Your task to perform on an android device: toggle improve location accuracy Image 0: 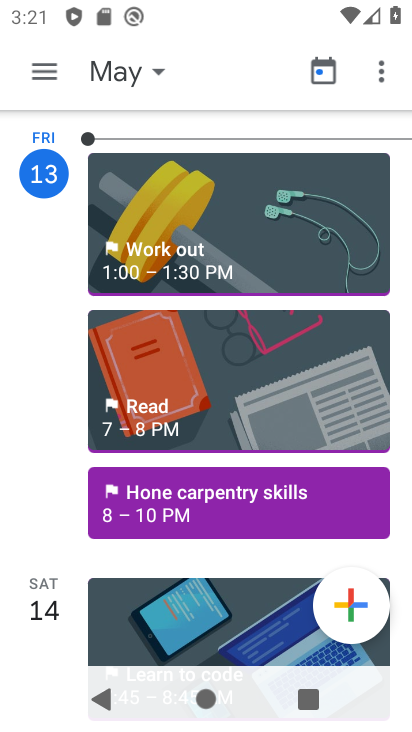
Step 0: press home button
Your task to perform on an android device: toggle improve location accuracy Image 1: 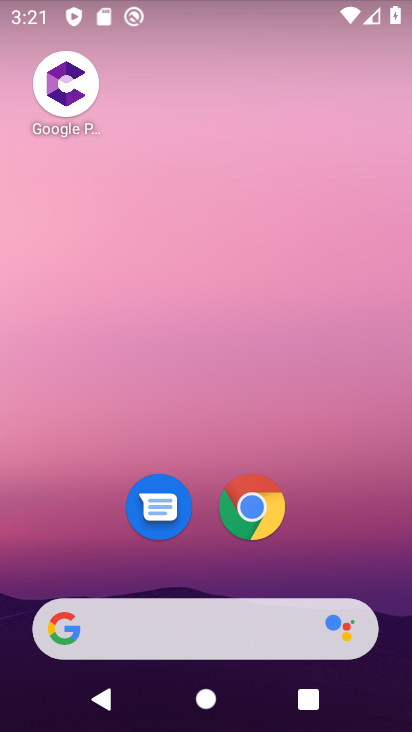
Step 1: drag from (338, 387) to (330, 0)
Your task to perform on an android device: toggle improve location accuracy Image 2: 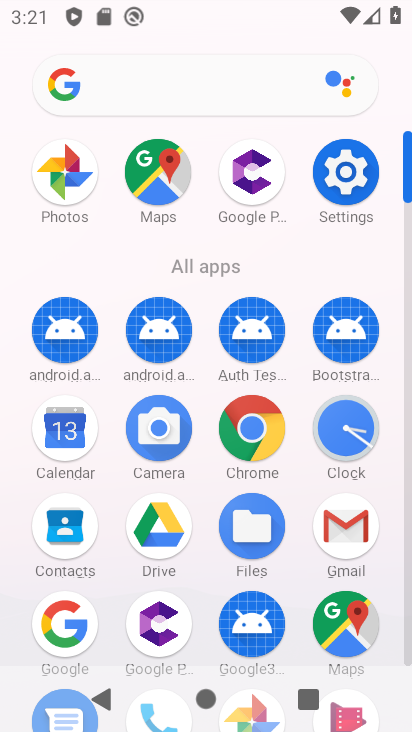
Step 2: click (361, 183)
Your task to perform on an android device: toggle improve location accuracy Image 3: 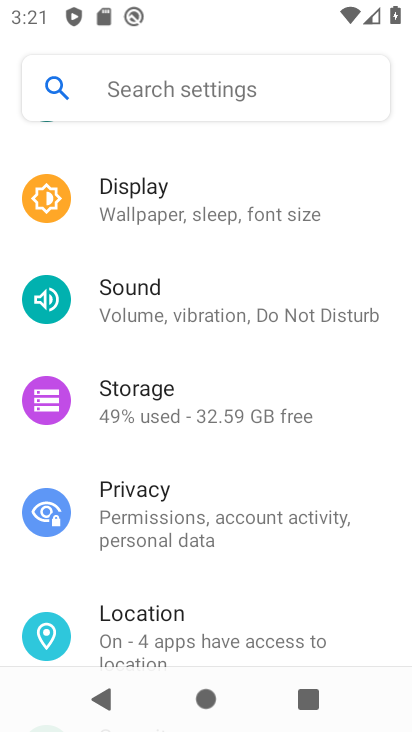
Step 3: drag from (224, 591) to (252, 317)
Your task to perform on an android device: toggle improve location accuracy Image 4: 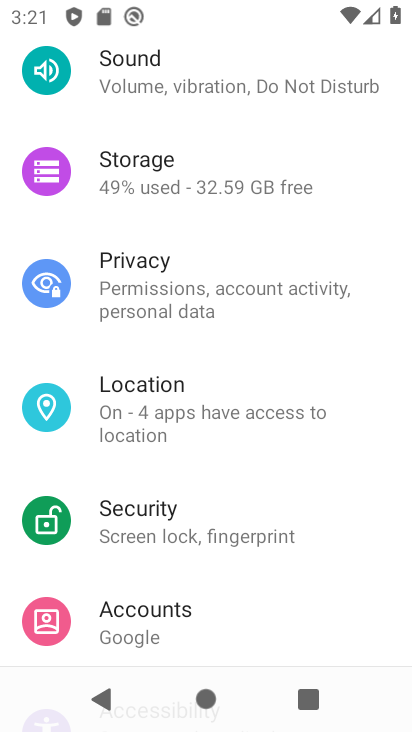
Step 4: click (161, 395)
Your task to perform on an android device: toggle improve location accuracy Image 5: 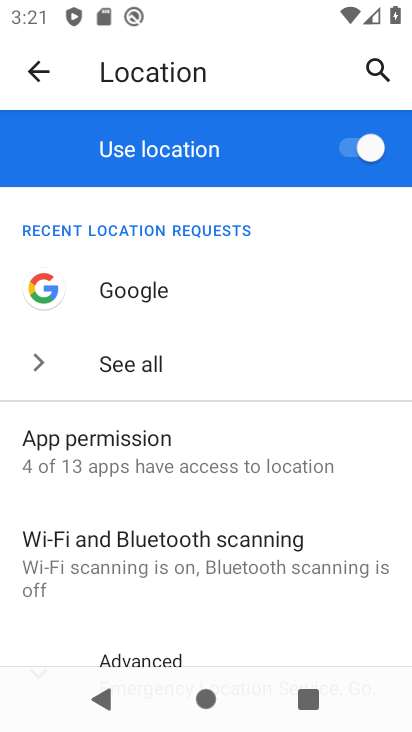
Step 5: drag from (191, 576) to (224, 285)
Your task to perform on an android device: toggle improve location accuracy Image 6: 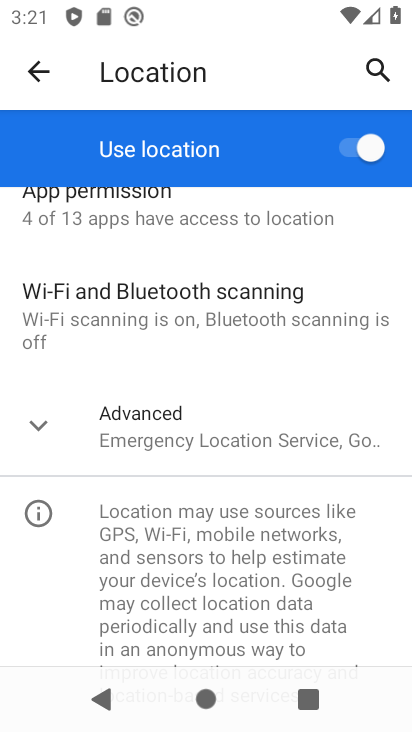
Step 6: click (183, 453)
Your task to perform on an android device: toggle improve location accuracy Image 7: 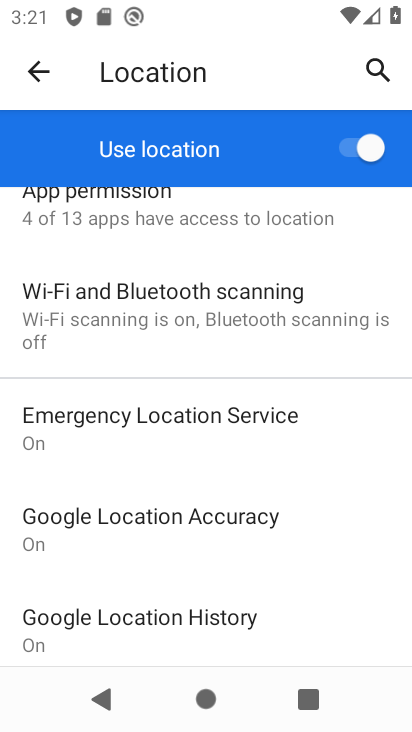
Step 7: click (165, 514)
Your task to perform on an android device: toggle improve location accuracy Image 8: 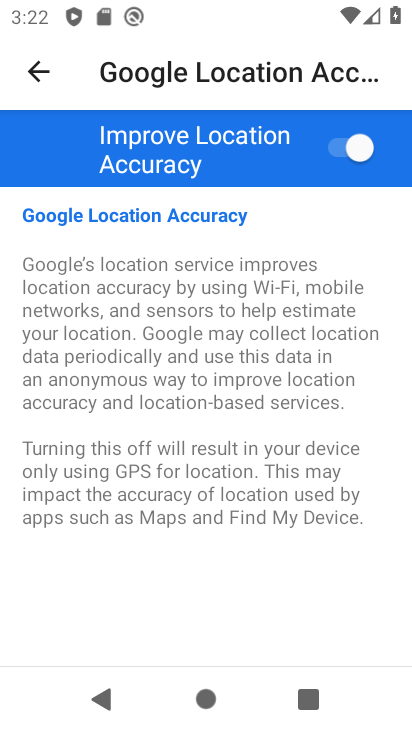
Step 8: click (337, 152)
Your task to perform on an android device: toggle improve location accuracy Image 9: 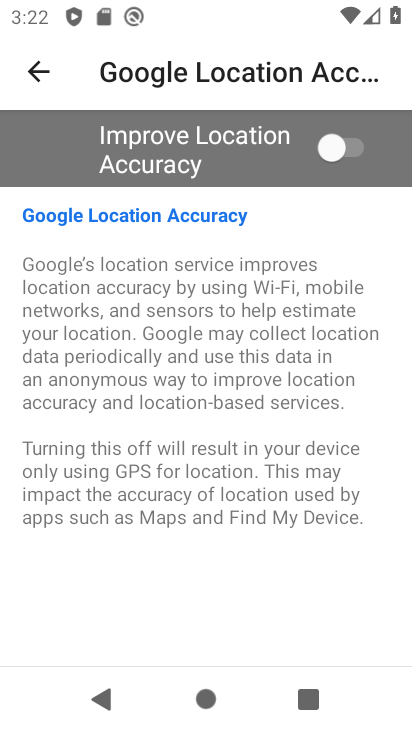
Step 9: task complete